Your task to perform on an android device: change timer sound Image 0: 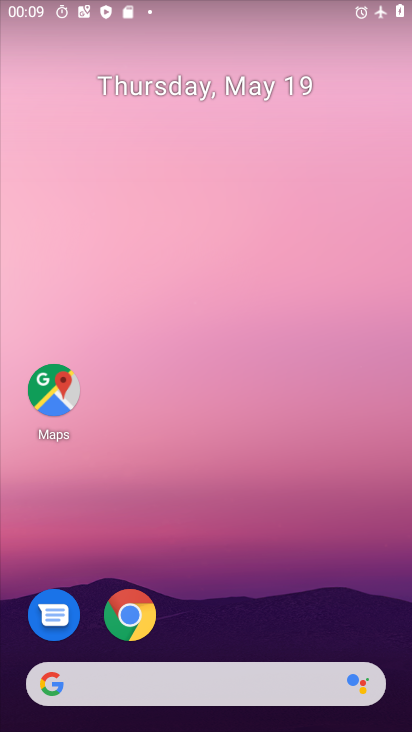
Step 0: drag from (40, 380) to (201, 66)
Your task to perform on an android device: change timer sound Image 1: 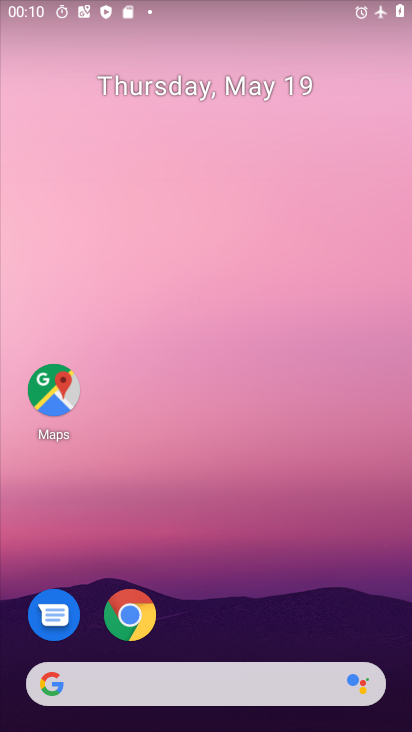
Step 1: drag from (15, 357) to (90, 113)
Your task to perform on an android device: change timer sound Image 2: 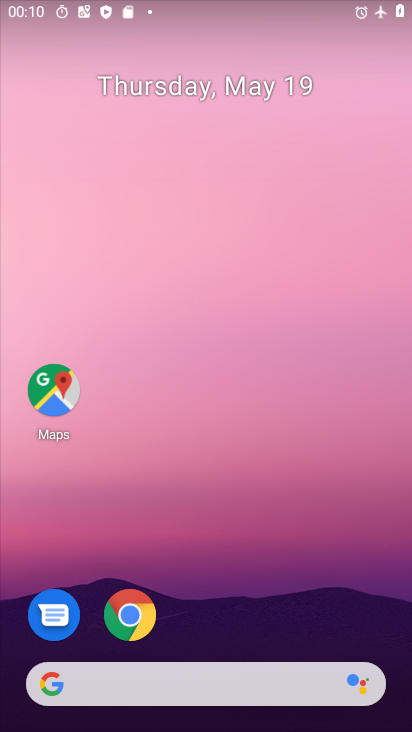
Step 2: drag from (32, 613) to (305, 193)
Your task to perform on an android device: change timer sound Image 3: 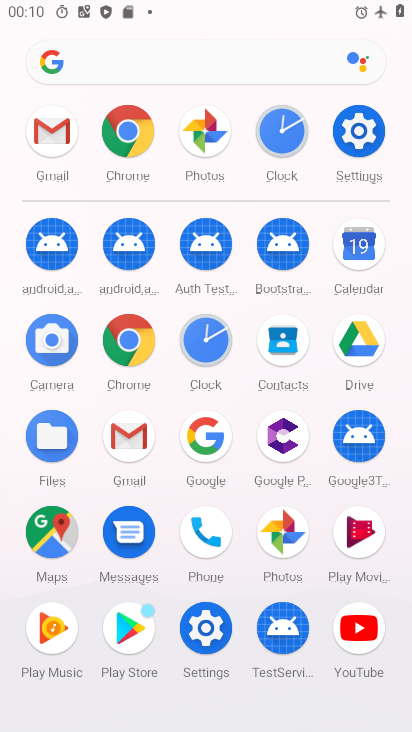
Step 3: click (279, 135)
Your task to perform on an android device: change timer sound Image 4: 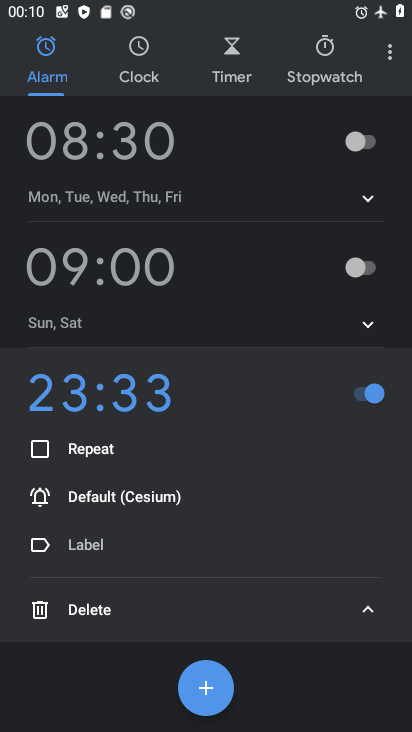
Step 4: click (391, 47)
Your task to perform on an android device: change timer sound Image 5: 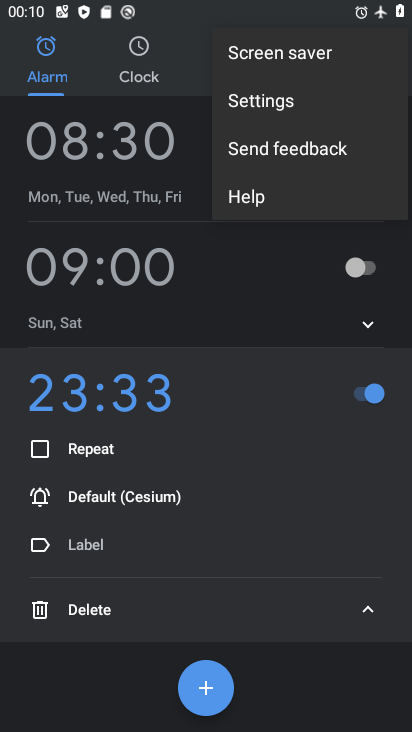
Step 5: click (298, 99)
Your task to perform on an android device: change timer sound Image 6: 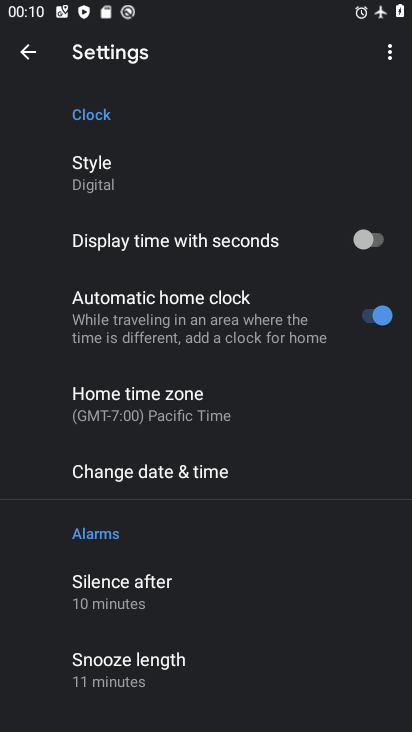
Step 6: drag from (4, 478) to (122, 230)
Your task to perform on an android device: change timer sound Image 7: 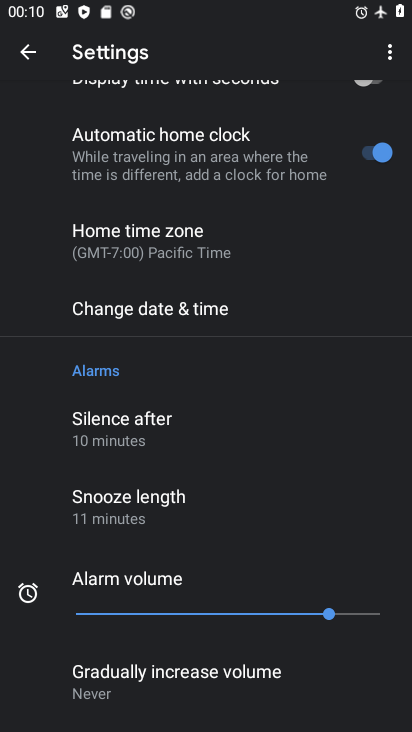
Step 7: drag from (40, 349) to (200, 124)
Your task to perform on an android device: change timer sound Image 8: 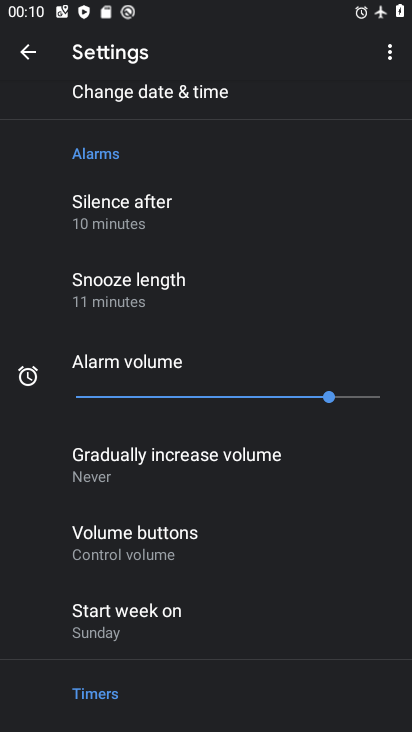
Step 8: drag from (23, 476) to (172, 169)
Your task to perform on an android device: change timer sound Image 9: 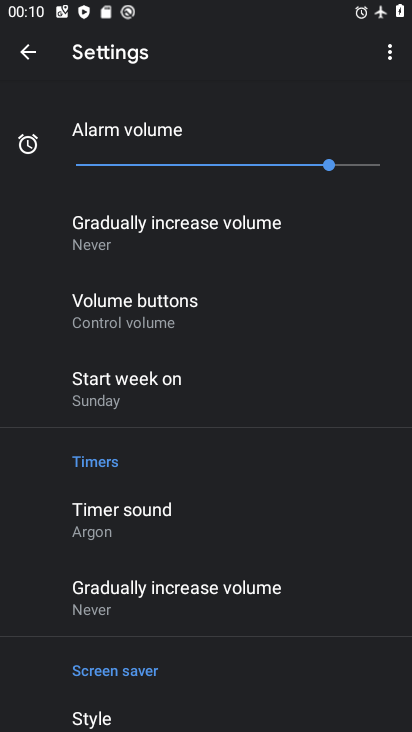
Step 9: click (159, 519)
Your task to perform on an android device: change timer sound Image 10: 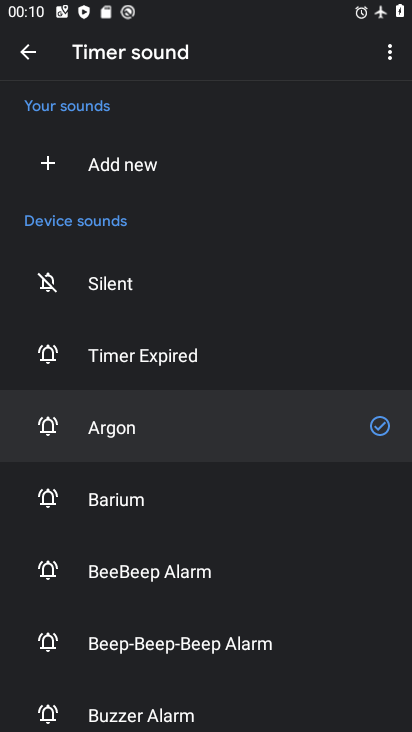
Step 10: click (159, 355)
Your task to perform on an android device: change timer sound Image 11: 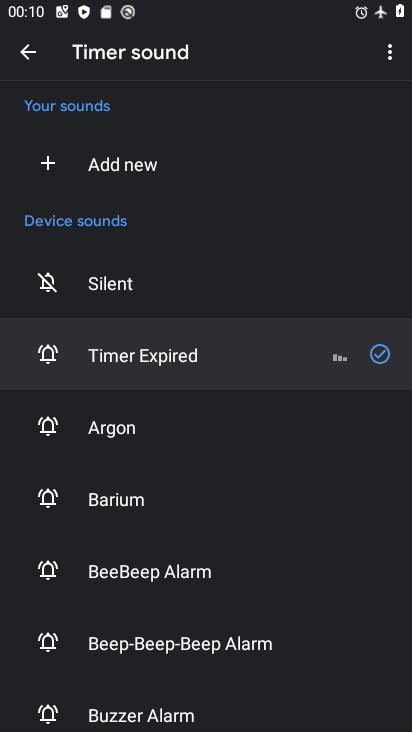
Step 11: task complete